Your task to perform on an android device: open a bookmark in the chrome app Image 0: 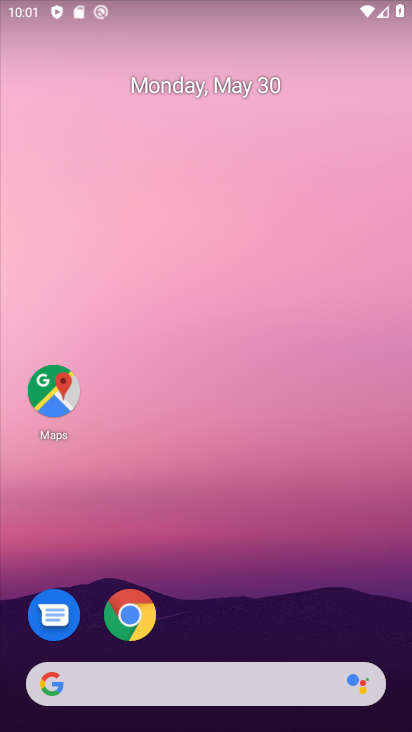
Step 0: click (130, 617)
Your task to perform on an android device: open a bookmark in the chrome app Image 1: 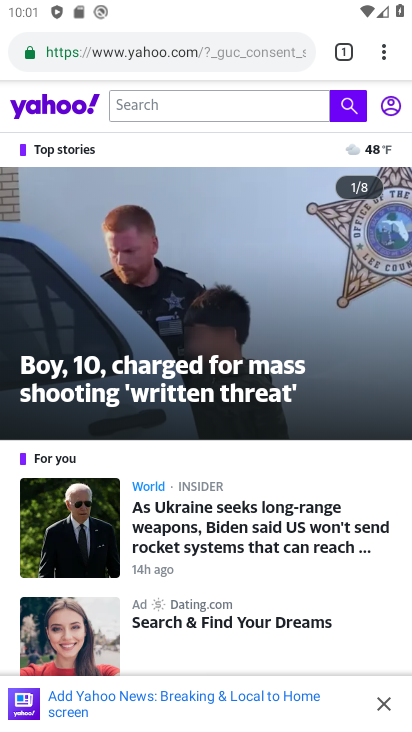
Step 1: click (383, 59)
Your task to perform on an android device: open a bookmark in the chrome app Image 2: 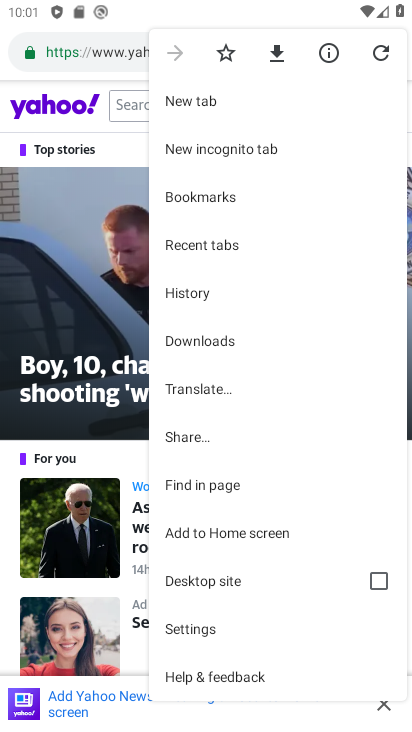
Step 2: click (206, 195)
Your task to perform on an android device: open a bookmark in the chrome app Image 3: 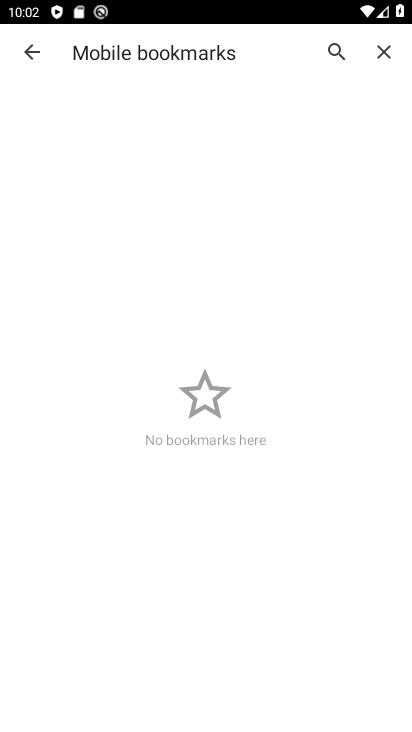
Step 3: task complete